Your task to perform on an android device: check out phone information Image 0: 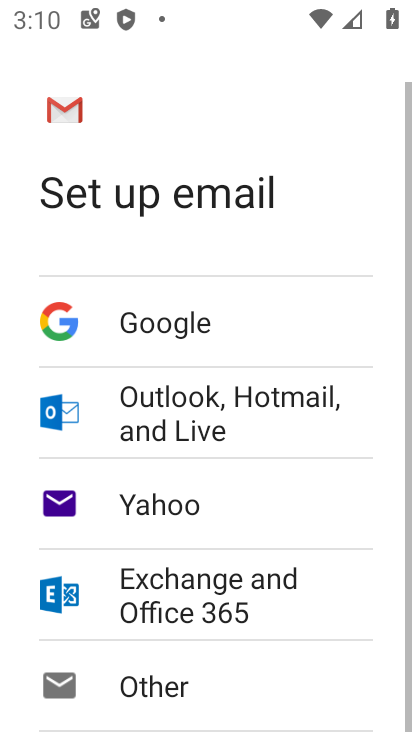
Step 0: press home button
Your task to perform on an android device: check out phone information Image 1: 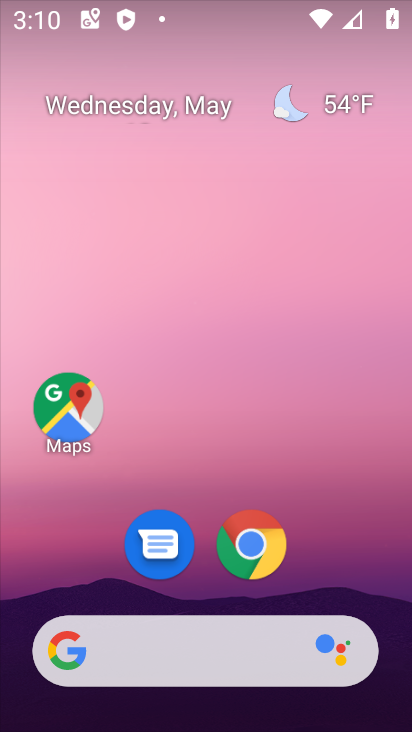
Step 1: drag from (347, 565) to (346, 152)
Your task to perform on an android device: check out phone information Image 2: 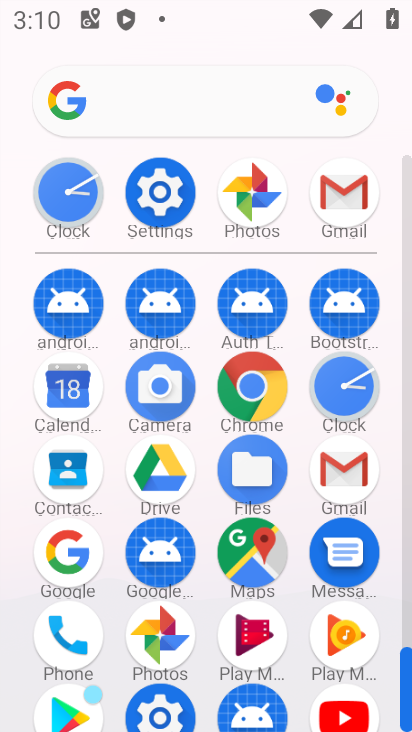
Step 2: click (203, 218)
Your task to perform on an android device: check out phone information Image 3: 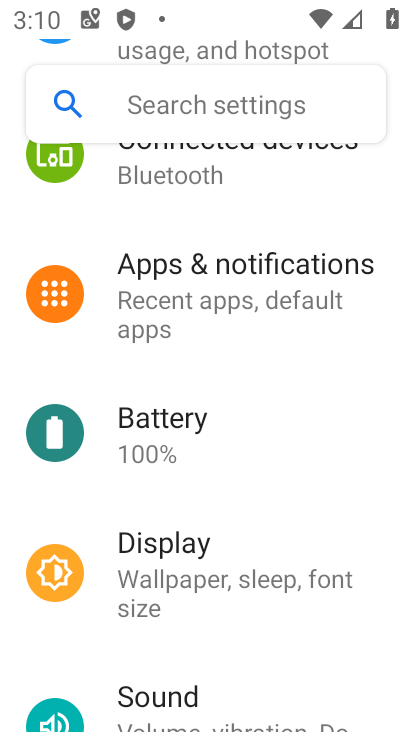
Step 3: task complete